Your task to perform on an android device: clear history in the chrome app Image 0: 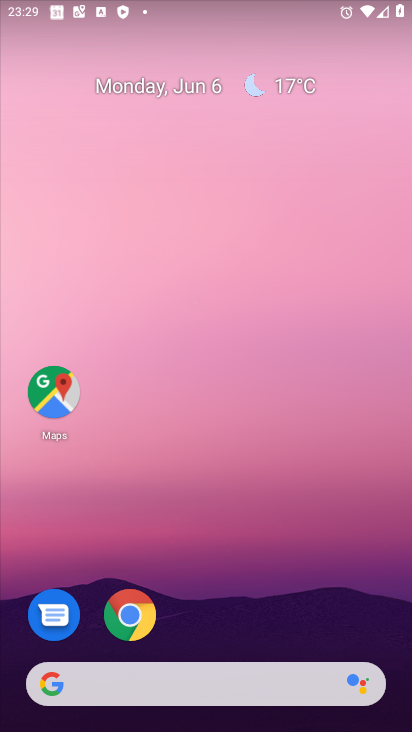
Step 0: click (127, 613)
Your task to perform on an android device: clear history in the chrome app Image 1: 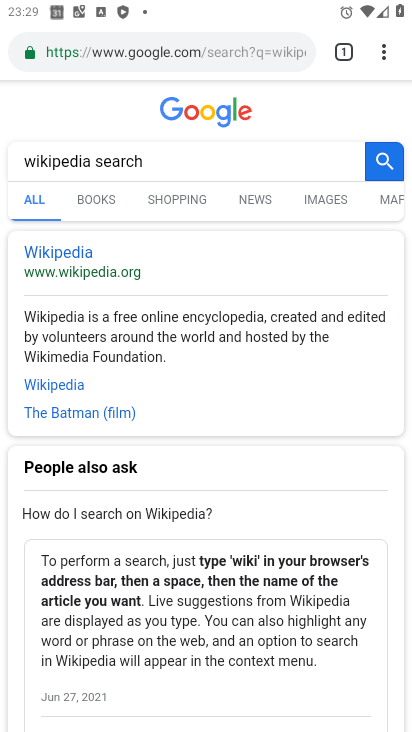
Step 1: drag from (281, 633) to (268, 238)
Your task to perform on an android device: clear history in the chrome app Image 2: 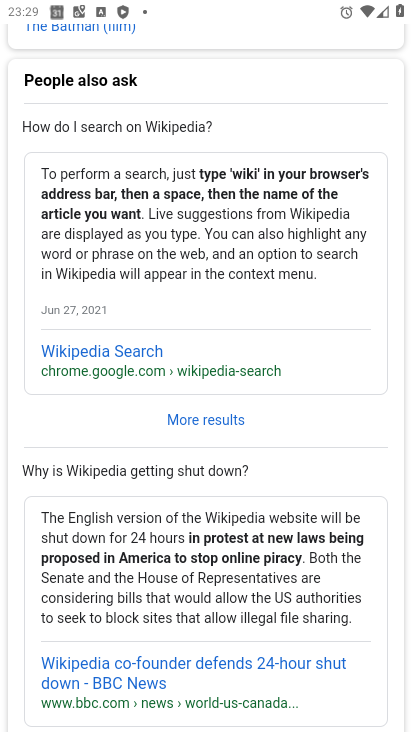
Step 2: drag from (333, 110) to (320, 575)
Your task to perform on an android device: clear history in the chrome app Image 3: 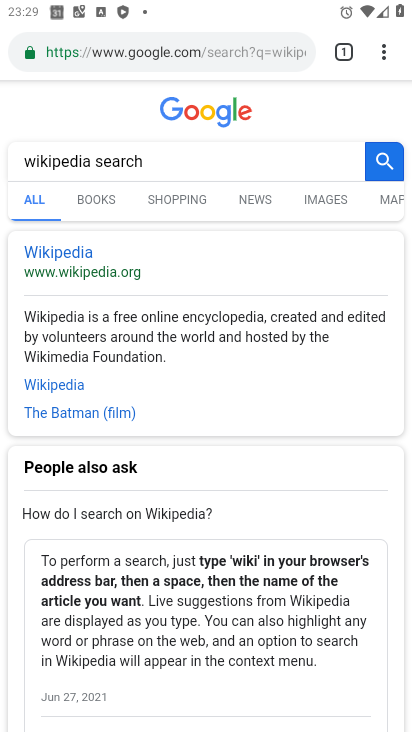
Step 3: click (386, 52)
Your task to perform on an android device: clear history in the chrome app Image 4: 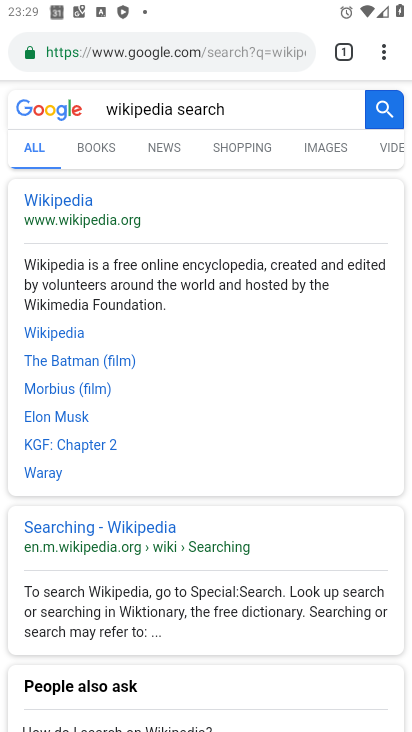
Step 4: click (382, 49)
Your task to perform on an android device: clear history in the chrome app Image 5: 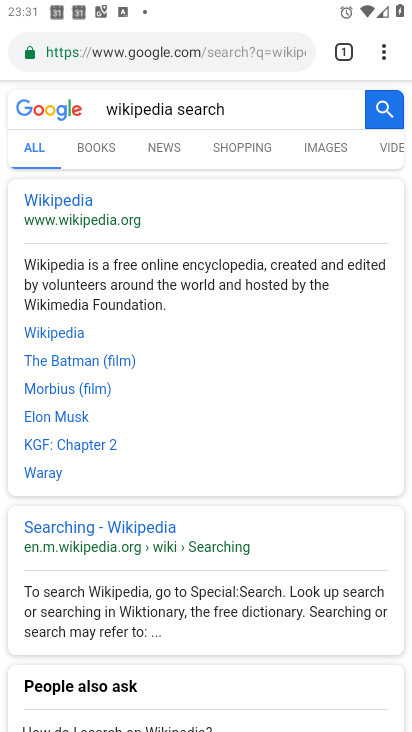
Step 5: drag from (275, 675) to (271, 341)
Your task to perform on an android device: clear history in the chrome app Image 6: 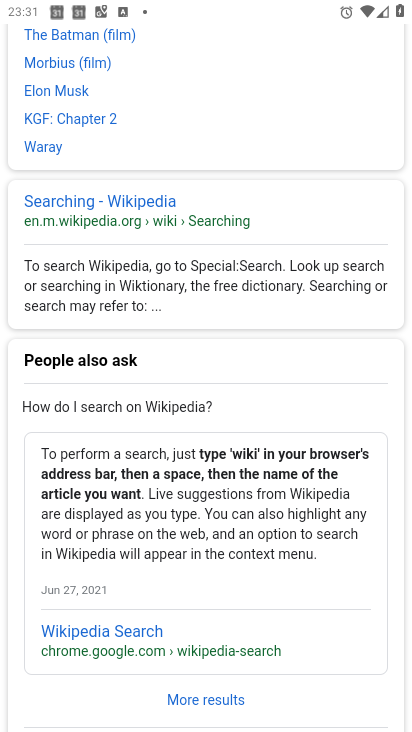
Step 6: drag from (238, 160) to (264, 534)
Your task to perform on an android device: clear history in the chrome app Image 7: 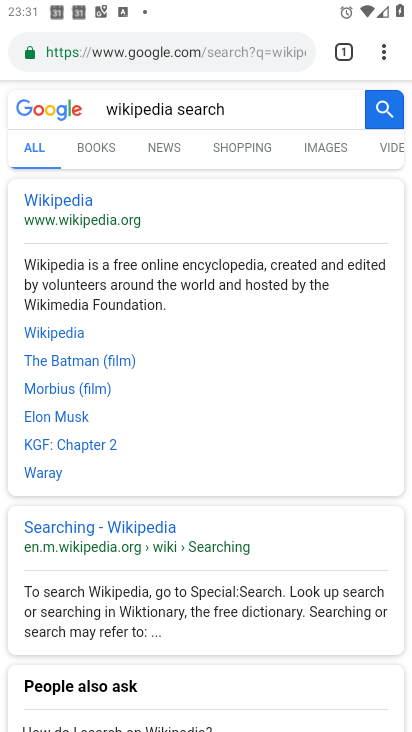
Step 7: click (381, 48)
Your task to perform on an android device: clear history in the chrome app Image 8: 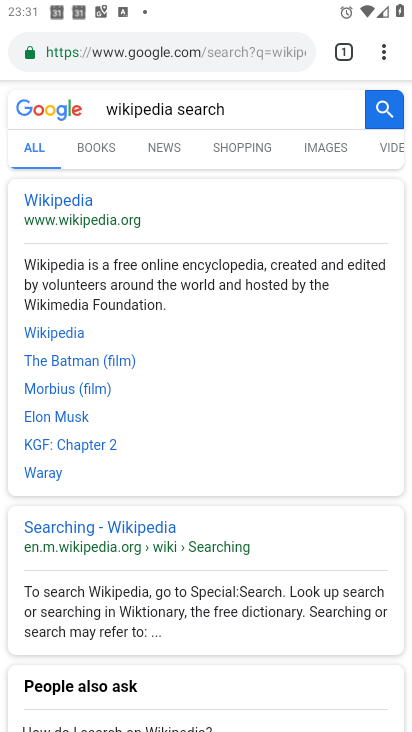
Step 8: click (381, 48)
Your task to perform on an android device: clear history in the chrome app Image 9: 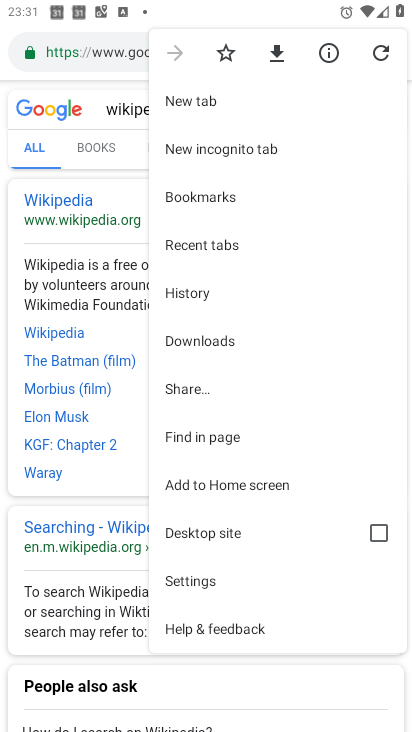
Step 9: click (182, 284)
Your task to perform on an android device: clear history in the chrome app Image 10: 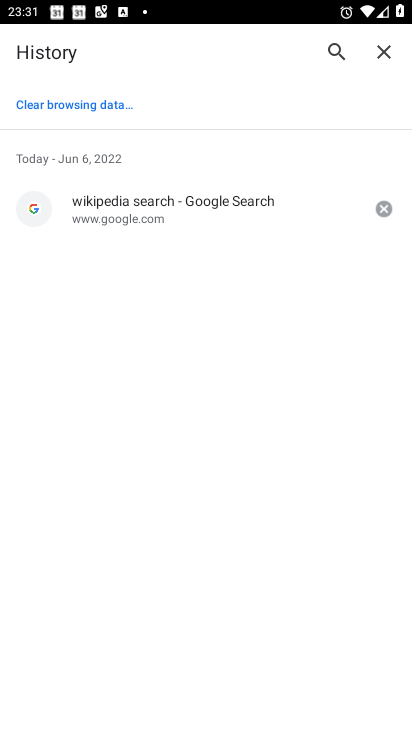
Step 10: click (122, 102)
Your task to perform on an android device: clear history in the chrome app Image 11: 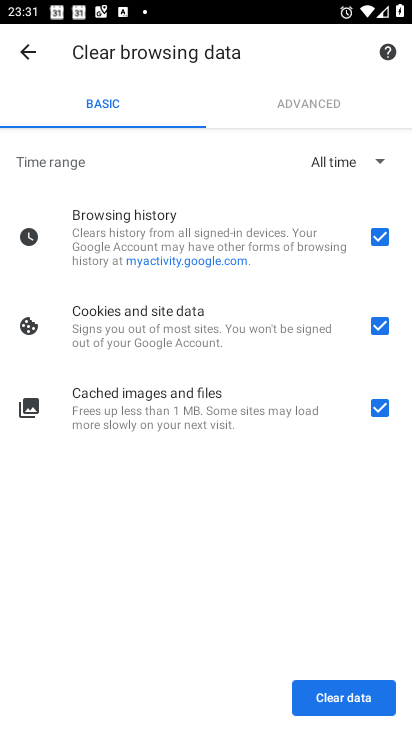
Step 11: click (303, 690)
Your task to perform on an android device: clear history in the chrome app Image 12: 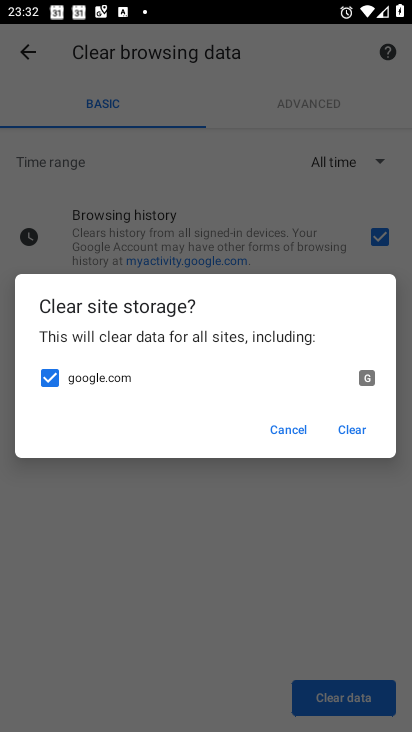
Step 12: click (341, 425)
Your task to perform on an android device: clear history in the chrome app Image 13: 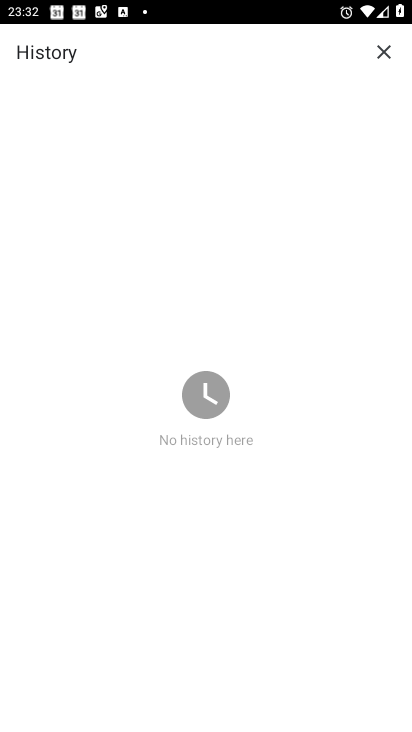
Step 13: task complete